Your task to perform on an android device: Open the stopwatch Image 0: 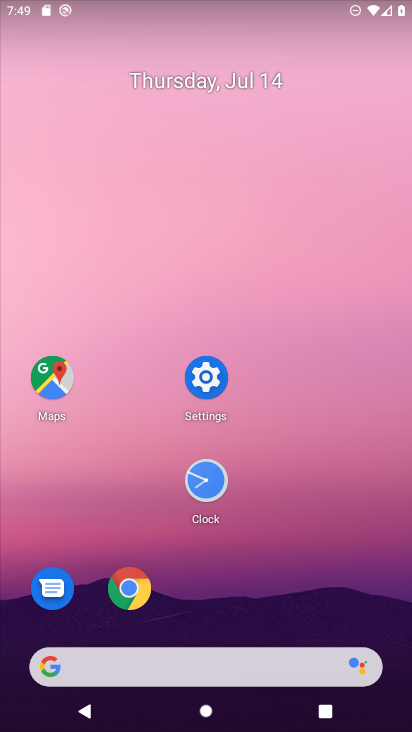
Step 0: click (208, 483)
Your task to perform on an android device: Open the stopwatch Image 1: 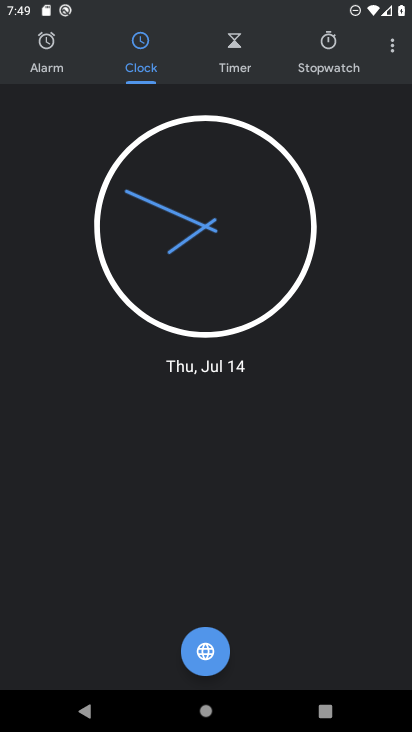
Step 1: click (330, 61)
Your task to perform on an android device: Open the stopwatch Image 2: 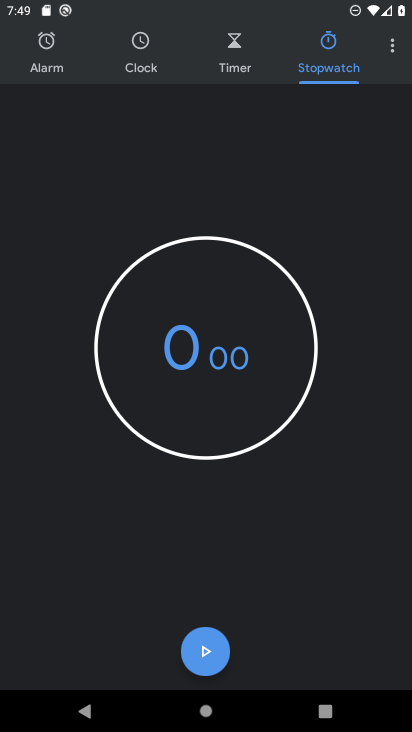
Step 2: task complete